Your task to perform on an android device: Go to network settings Image 0: 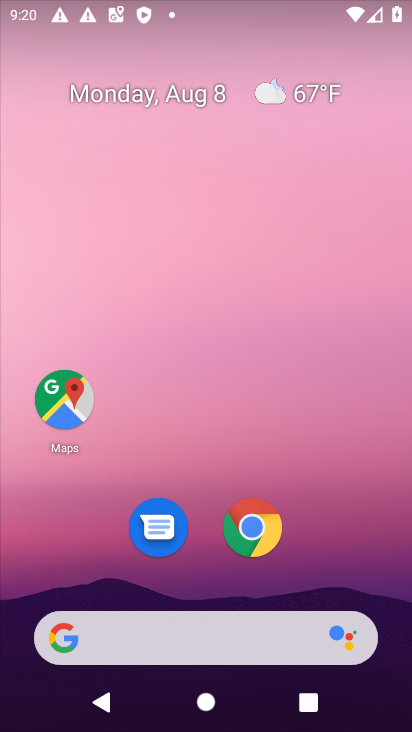
Step 0: drag from (379, 685) to (349, 176)
Your task to perform on an android device: Go to network settings Image 1: 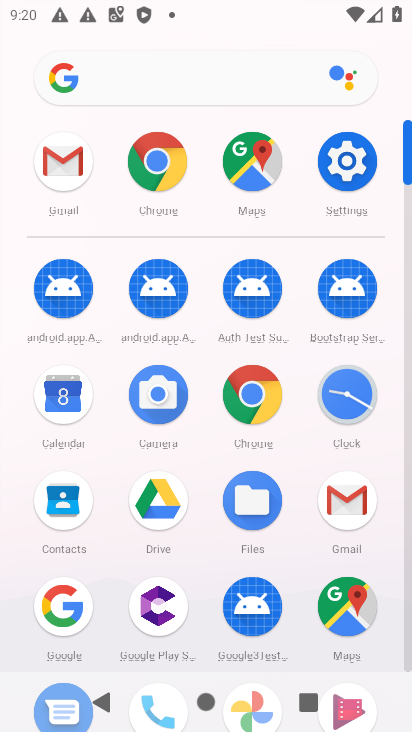
Step 1: click (342, 174)
Your task to perform on an android device: Go to network settings Image 2: 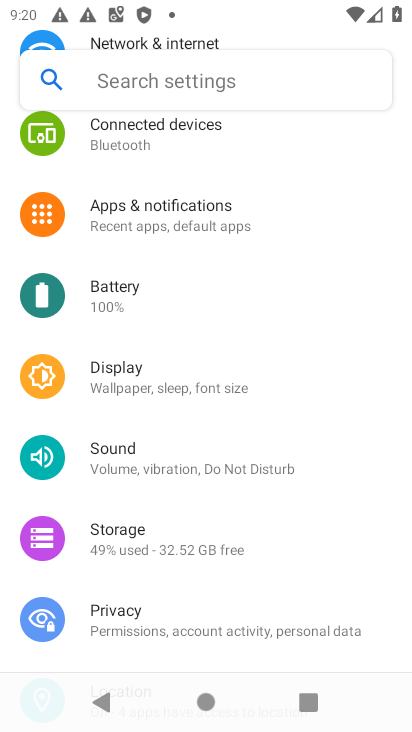
Step 2: click (178, 37)
Your task to perform on an android device: Go to network settings Image 3: 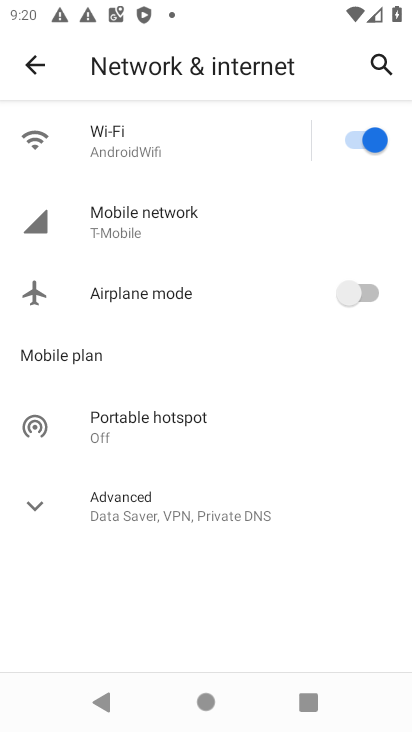
Step 3: click (355, 137)
Your task to perform on an android device: Go to network settings Image 4: 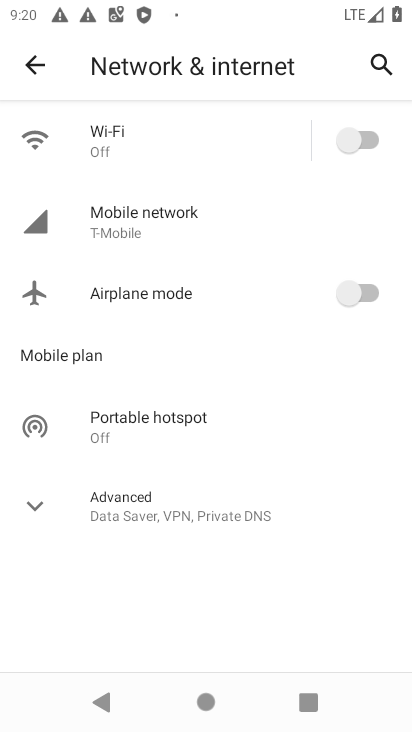
Step 4: click (366, 138)
Your task to perform on an android device: Go to network settings Image 5: 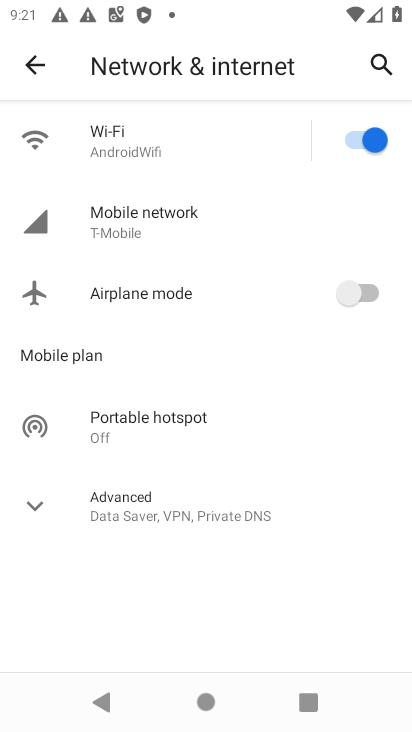
Step 5: click (162, 212)
Your task to perform on an android device: Go to network settings Image 6: 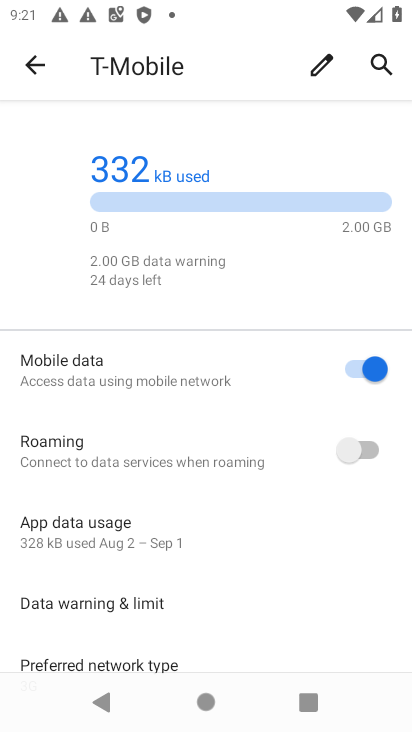
Step 6: drag from (270, 620) to (260, 232)
Your task to perform on an android device: Go to network settings Image 7: 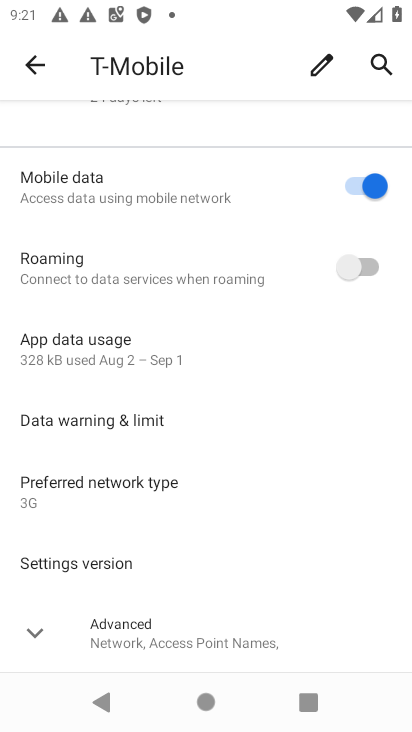
Step 7: click (21, 631)
Your task to perform on an android device: Go to network settings Image 8: 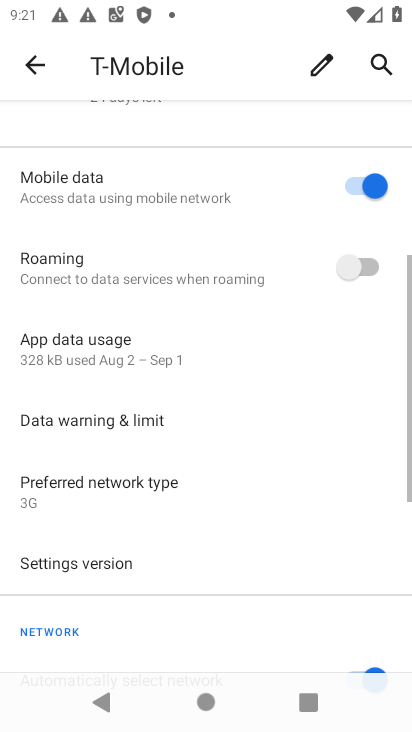
Step 8: task complete